Your task to perform on an android device: Open internet settings Image 0: 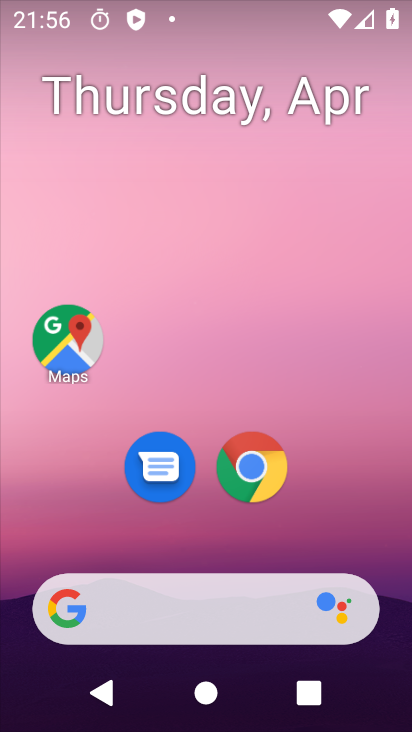
Step 0: drag from (217, 529) to (318, 16)
Your task to perform on an android device: Open internet settings Image 1: 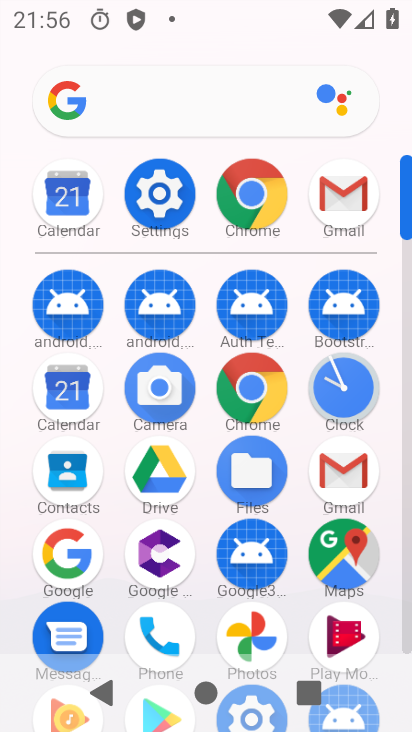
Step 1: click (172, 232)
Your task to perform on an android device: Open internet settings Image 2: 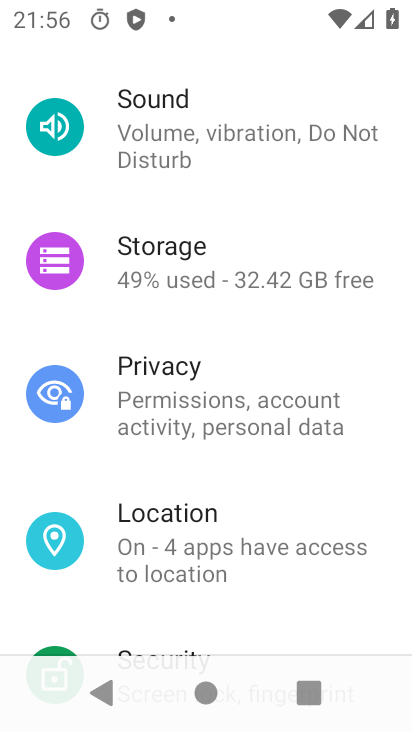
Step 2: drag from (196, 266) to (195, 580)
Your task to perform on an android device: Open internet settings Image 3: 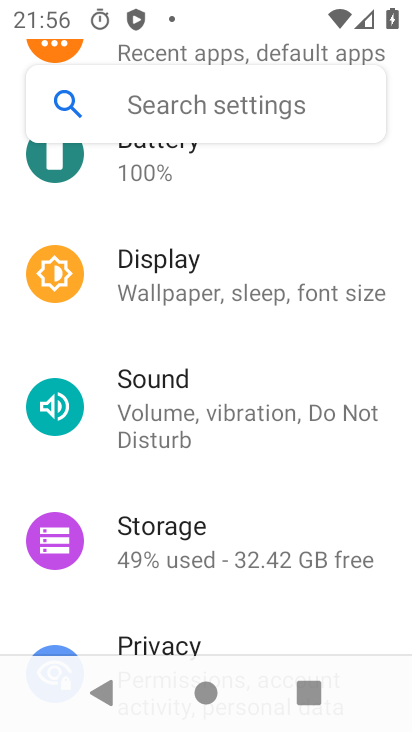
Step 3: drag from (222, 254) to (222, 546)
Your task to perform on an android device: Open internet settings Image 4: 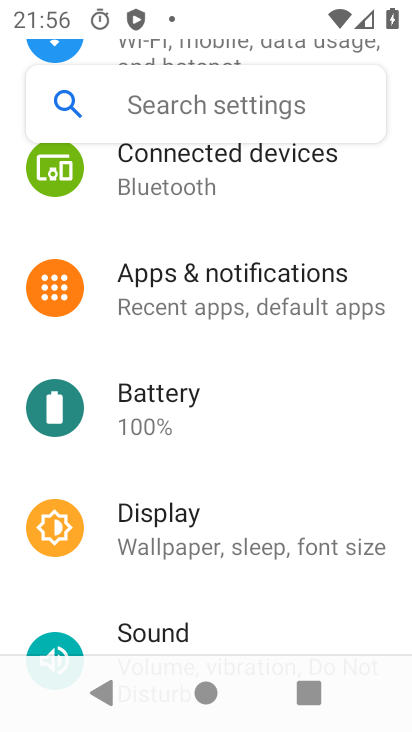
Step 4: drag from (231, 280) to (222, 641)
Your task to perform on an android device: Open internet settings Image 5: 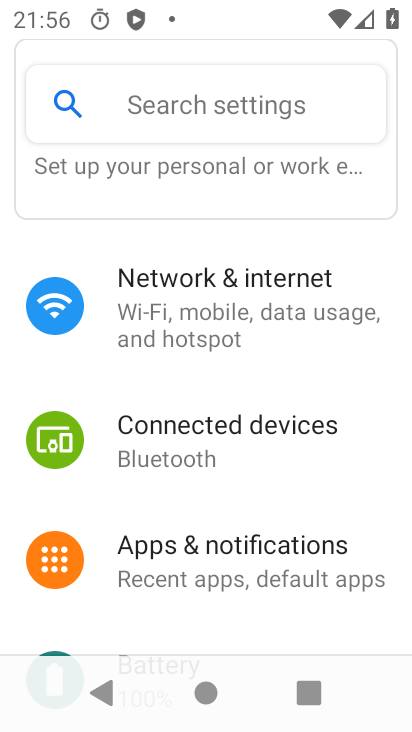
Step 5: click (254, 327)
Your task to perform on an android device: Open internet settings Image 6: 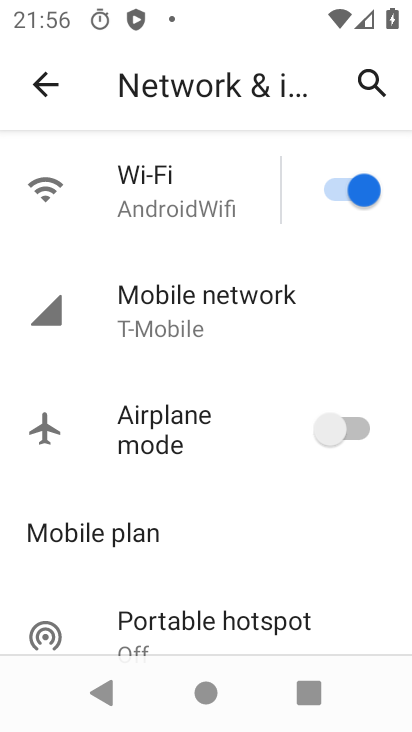
Step 6: drag from (216, 616) to (187, 13)
Your task to perform on an android device: Open internet settings Image 7: 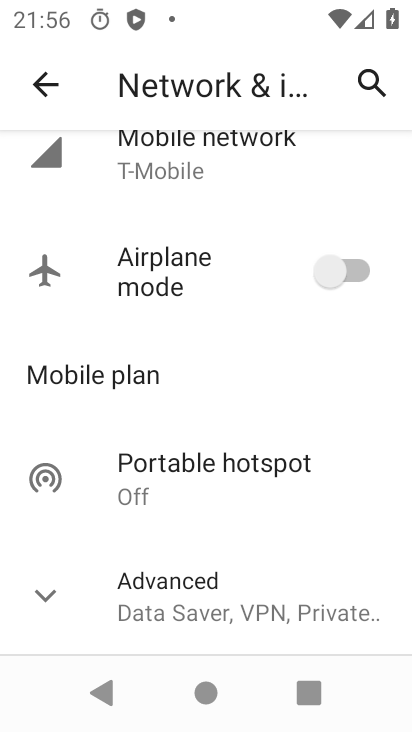
Step 7: click (193, 594)
Your task to perform on an android device: Open internet settings Image 8: 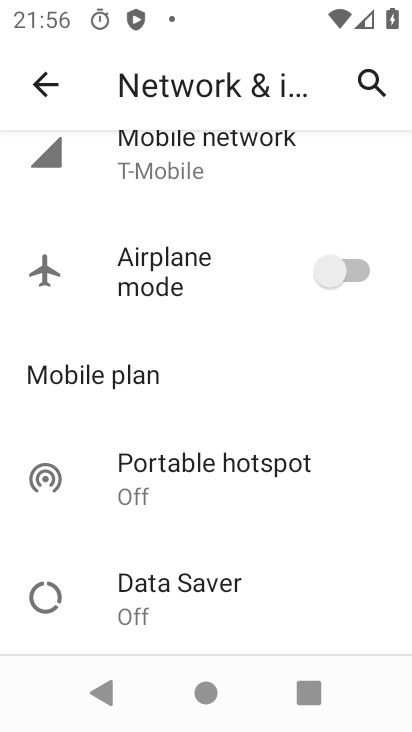
Step 8: task complete